Your task to perform on an android device: Open the map Image 0: 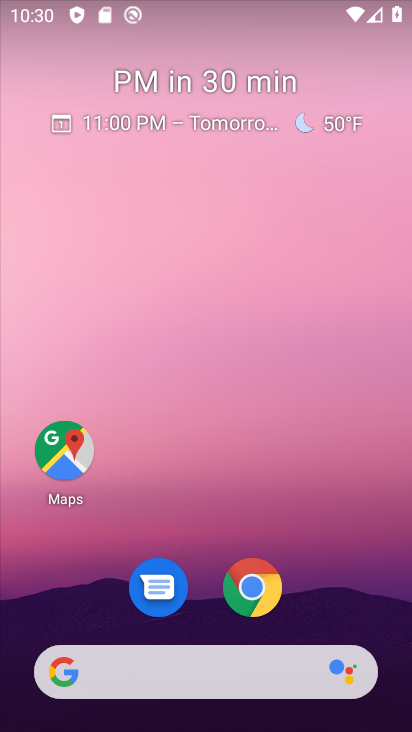
Step 0: click (74, 445)
Your task to perform on an android device: Open the map Image 1: 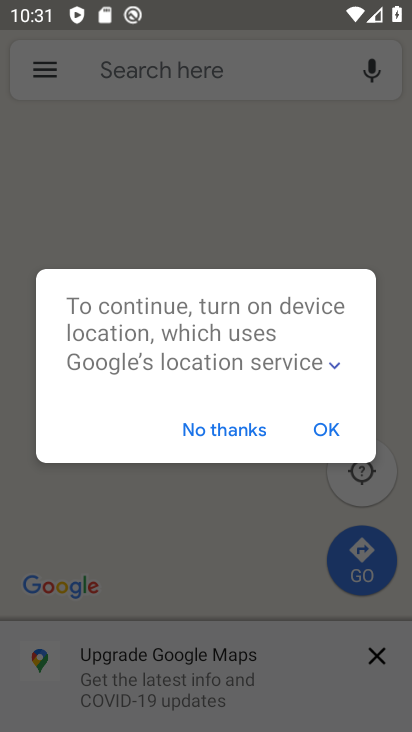
Step 1: click (335, 423)
Your task to perform on an android device: Open the map Image 2: 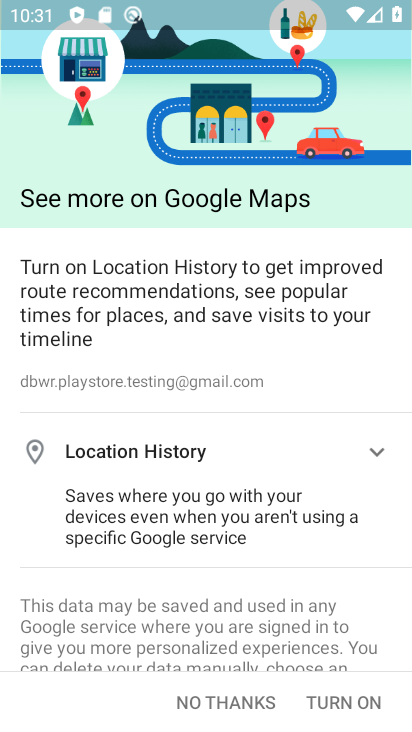
Step 2: click (339, 695)
Your task to perform on an android device: Open the map Image 3: 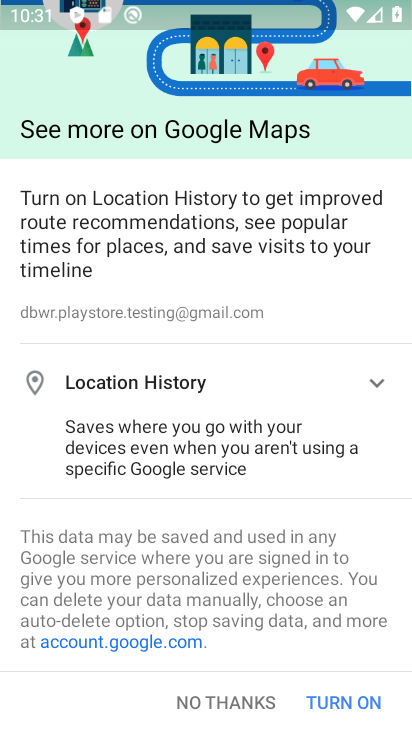
Step 3: click (342, 694)
Your task to perform on an android device: Open the map Image 4: 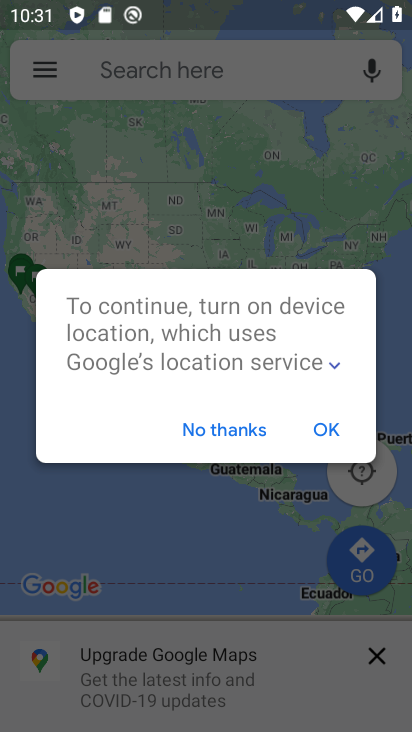
Step 4: click (330, 427)
Your task to perform on an android device: Open the map Image 5: 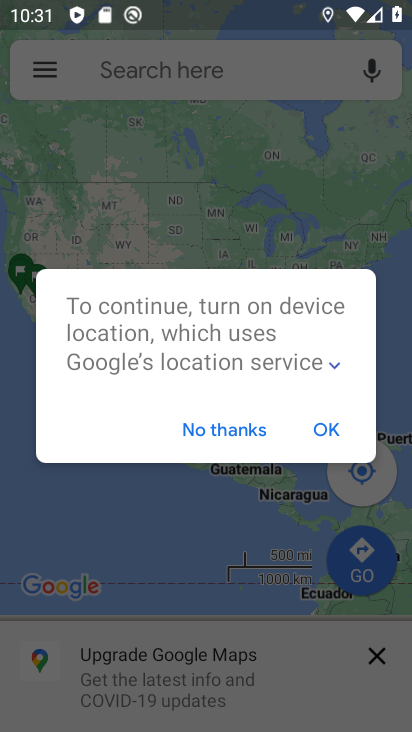
Step 5: task complete